Your task to perform on an android device: When is my next meeting? Image 0: 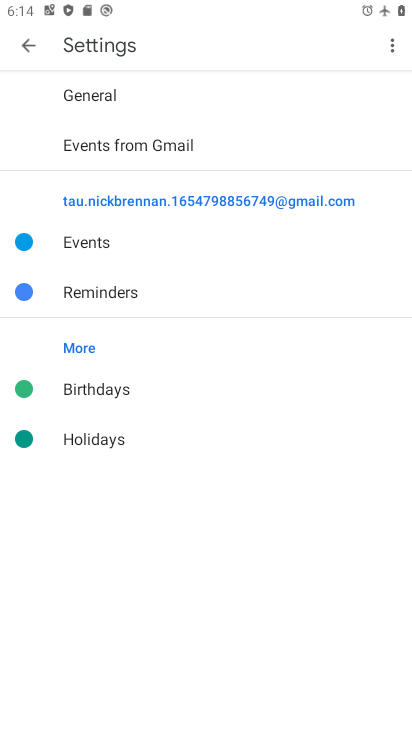
Step 0: press home button
Your task to perform on an android device: When is my next meeting? Image 1: 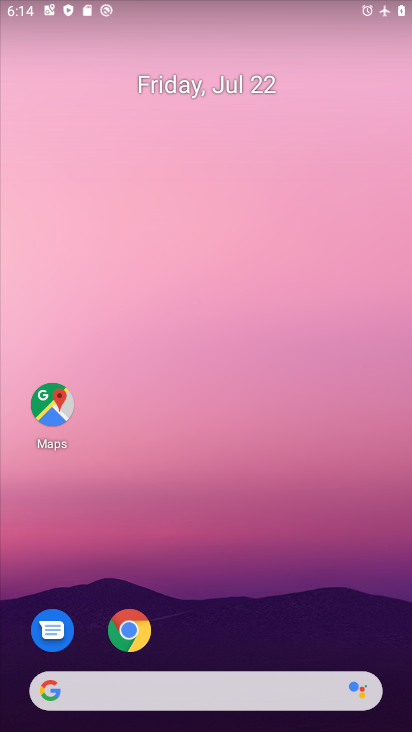
Step 1: drag from (278, 668) to (270, 0)
Your task to perform on an android device: When is my next meeting? Image 2: 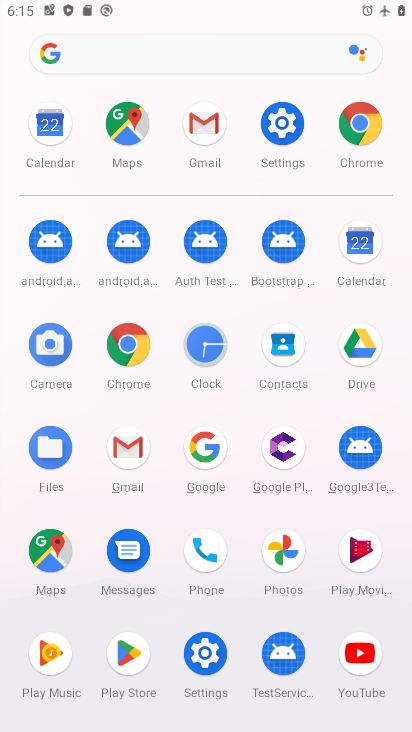
Step 2: click (366, 243)
Your task to perform on an android device: When is my next meeting? Image 3: 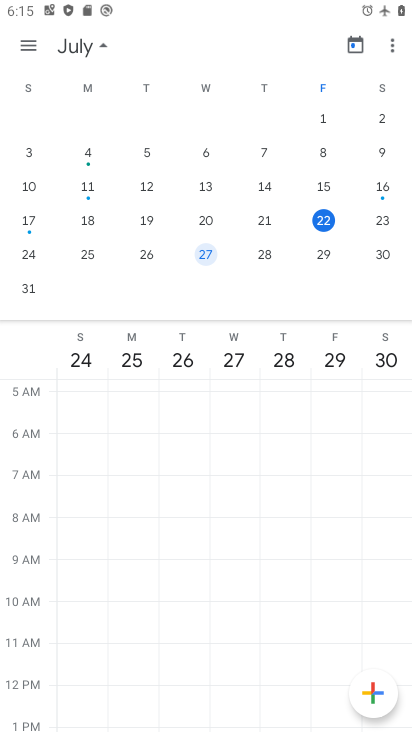
Step 3: click (376, 213)
Your task to perform on an android device: When is my next meeting? Image 4: 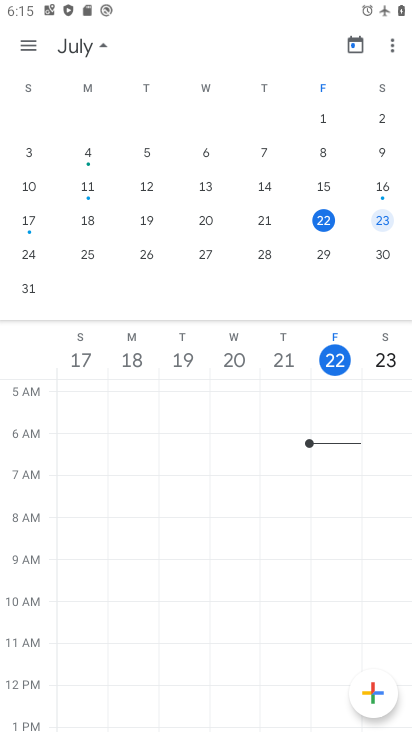
Step 4: task complete